Your task to perform on an android device: remove spam from my inbox in the gmail app Image 0: 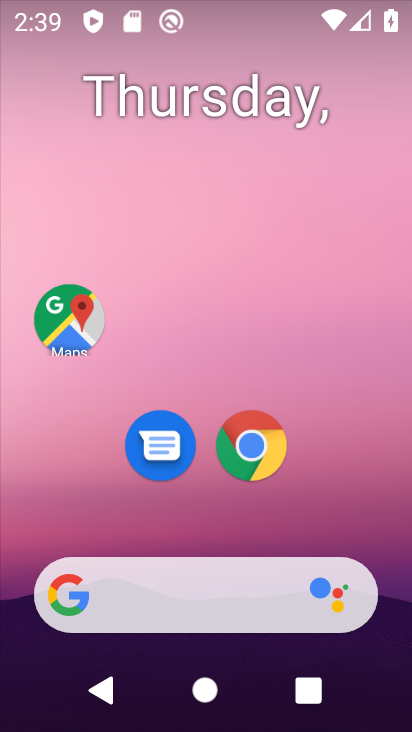
Step 0: click (260, 428)
Your task to perform on an android device: remove spam from my inbox in the gmail app Image 1: 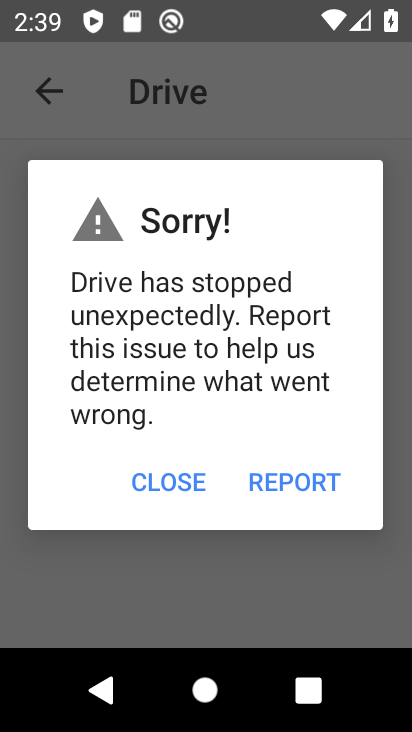
Step 1: press home button
Your task to perform on an android device: remove spam from my inbox in the gmail app Image 2: 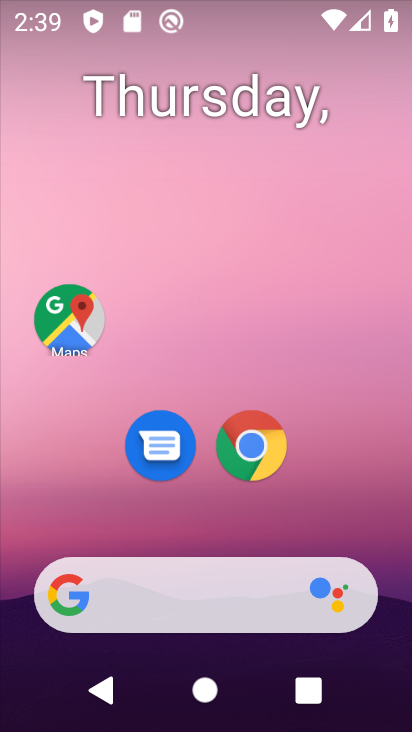
Step 2: drag from (319, 503) to (233, 11)
Your task to perform on an android device: remove spam from my inbox in the gmail app Image 3: 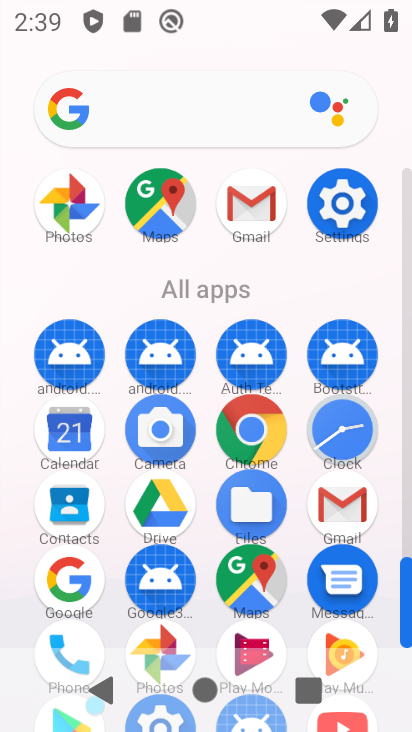
Step 3: click (257, 197)
Your task to perform on an android device: remove spam from my inbox in the gmail app Image 4: 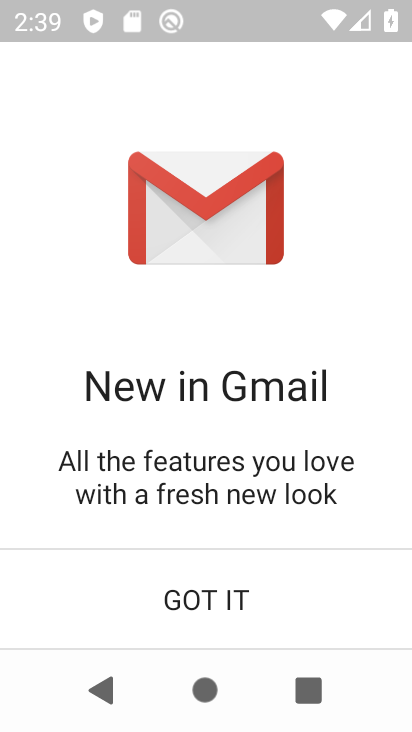
Step 4: click (228, 597)
Your task to perform on an android device: remove spam from my inbox in the gmail app Image 5: 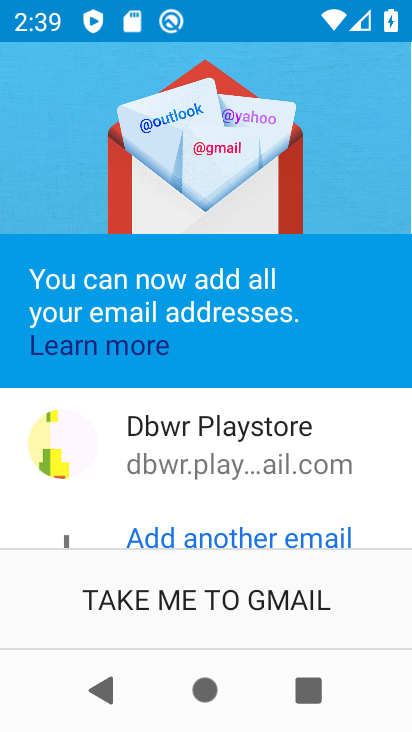
Step 5: click (227, 606)
Your task to perform on an android device: remove spam from my inbox in the gmail app Image 6: 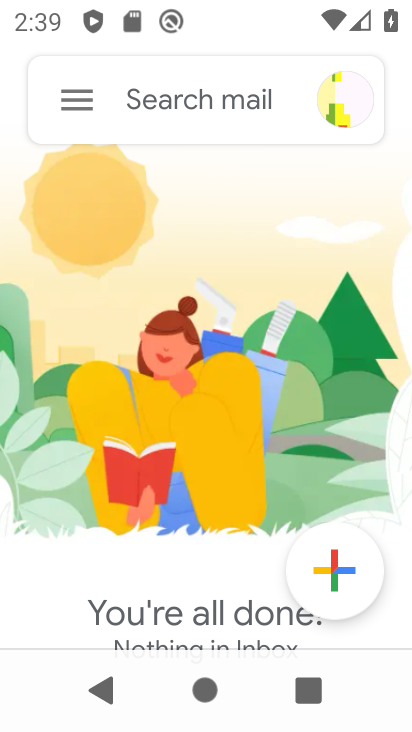
Step 6: click (84, 98)
Your task to perform on an android device: remove spam from my inbox in the gmail app Image 7: 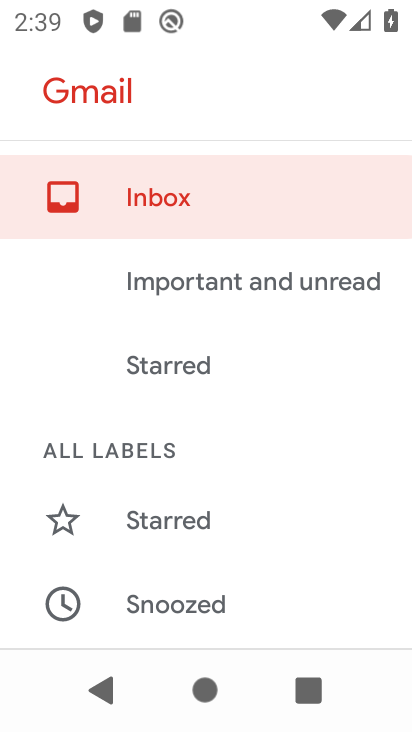
Step 7: drag from (162, 500) to (229, 269)
Your task to perform on an android device: remove spam from my inbox in the gmail app Image 8: 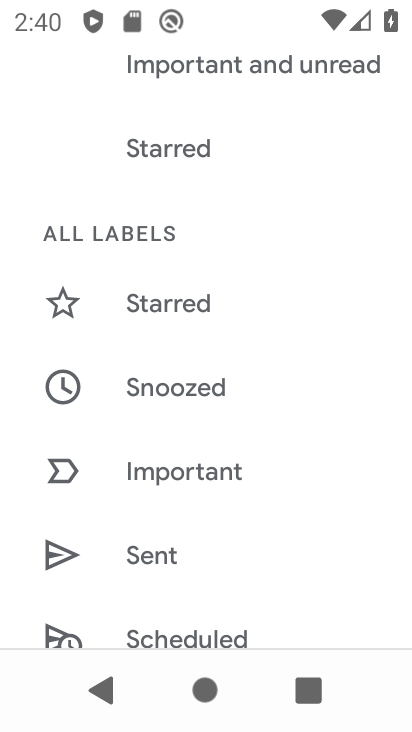
Step 8: drag from (212, 527) to (245, 345)
Your task to perform on an android device: remove spam from my inbox in the gmail app Image 9: 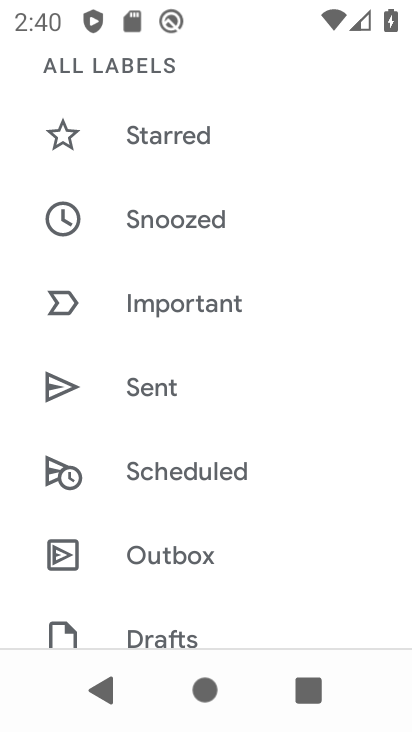
Step 9: drag from (229, 426) to (258, 325)
Your task to perform on an android device: remove spam from my inbox in the gmail app Image 10: 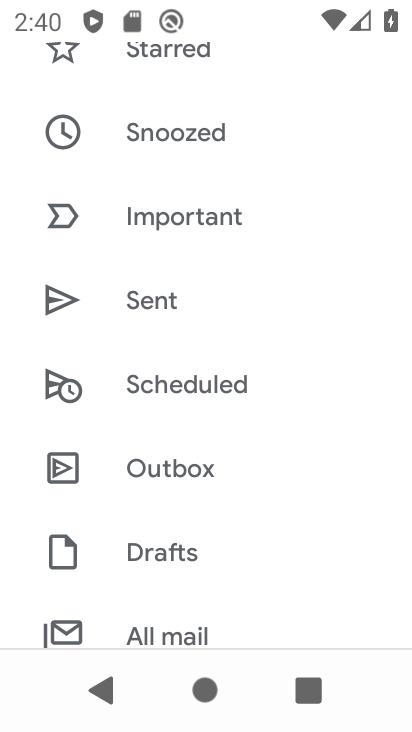
Step 10: drag from (252, 448) to (284, 361)
Your task to perform on an android device: remove spam from my inbox in the gmail app Image 11: 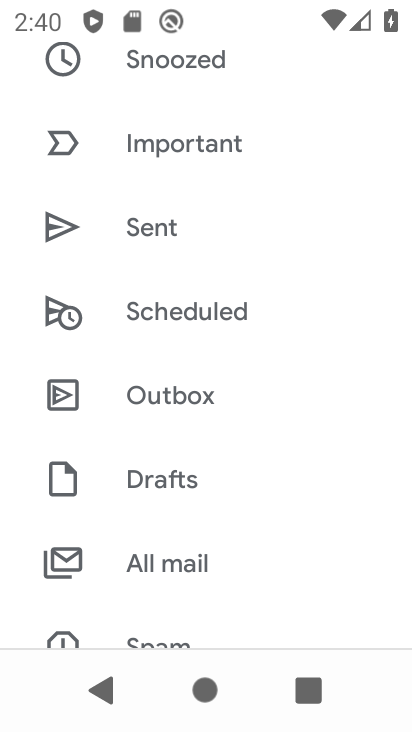
Step 11: drag from (233, 532) to (295, 384)
Your task to perform on an android device: remove spam from my inbox in the gmail app Image 12: 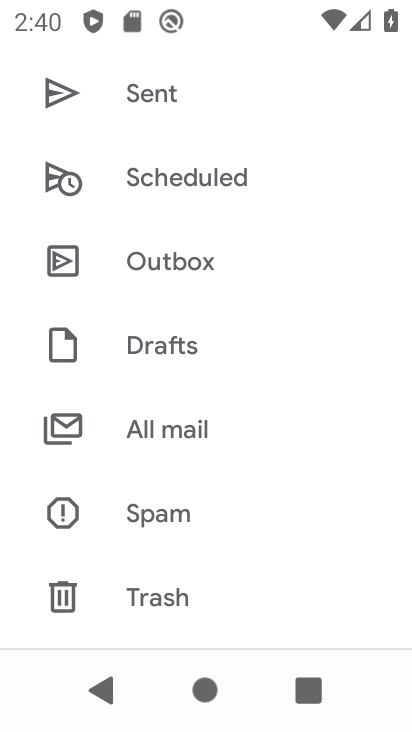
Step 12: click (172, 502)
Your task to perform on an android device: remove spam from my inbox in the gmail app Image 13: 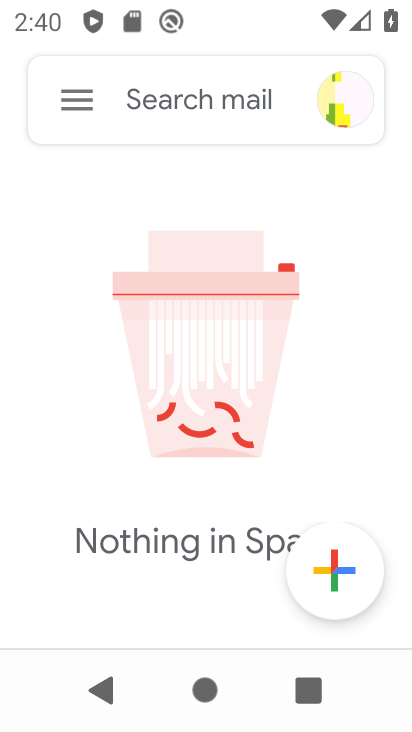
Step 13: task complete